Your task to perform on an android device: check data usage Image 0: 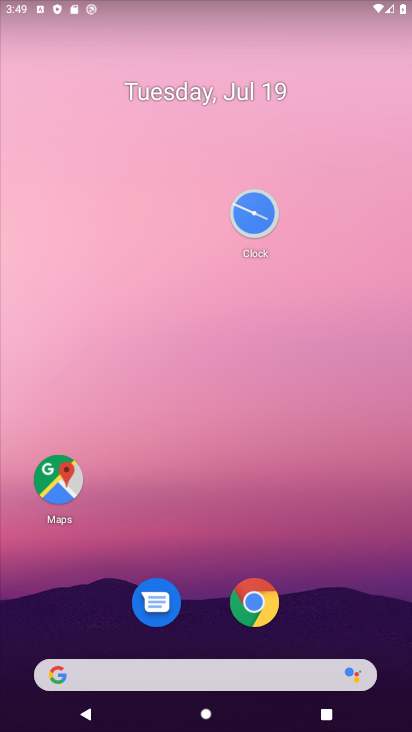
Step 0: drag from (342, 612) to (371, 219)
Your task to perform on an android device: check data usage Image 1: 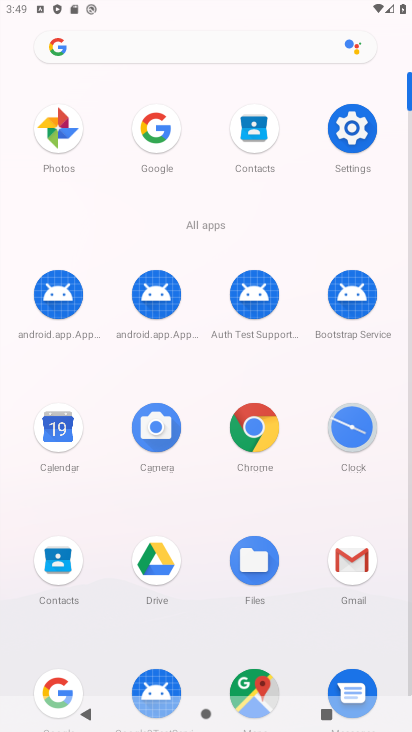
Step 1: drag from (336, 125) to (124, 167)
Your task to perform on an android device: check data usage Image 2: 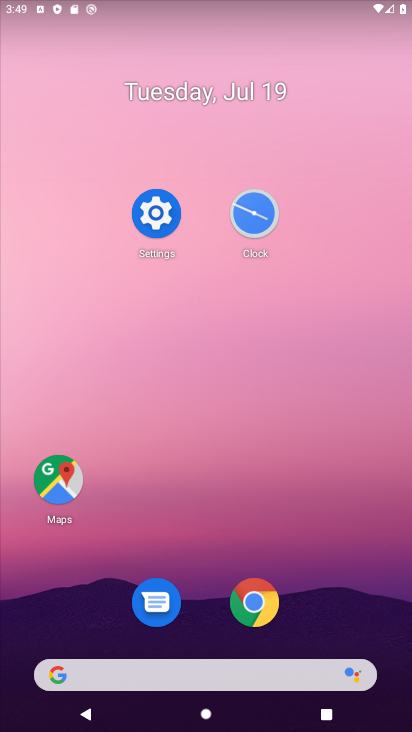
Step 2: click (138, 205)
Your task to perform on an android device: check data usage Image 3: 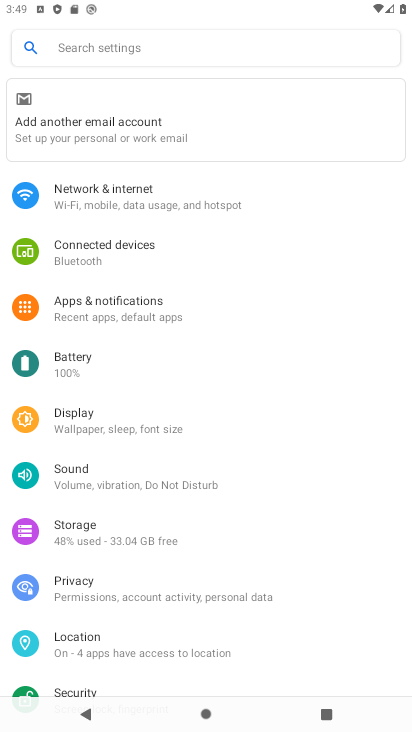
Step 3: click (138, 205)
Your task to perform on an android device: check data usage Image 4: 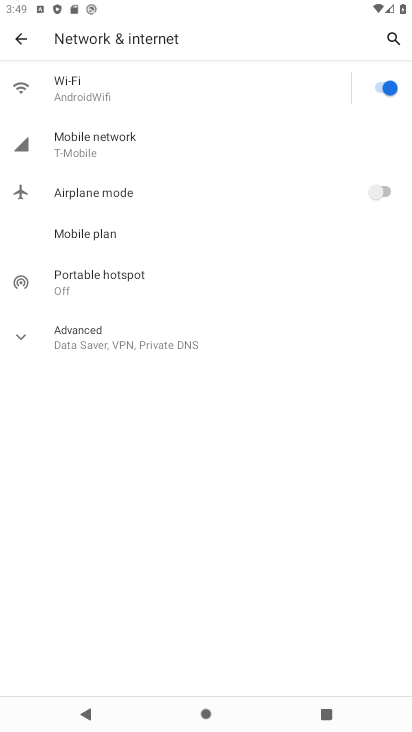
Step 4: click (126, 161)
Your task to perform on an android device: check data usage Image 5: 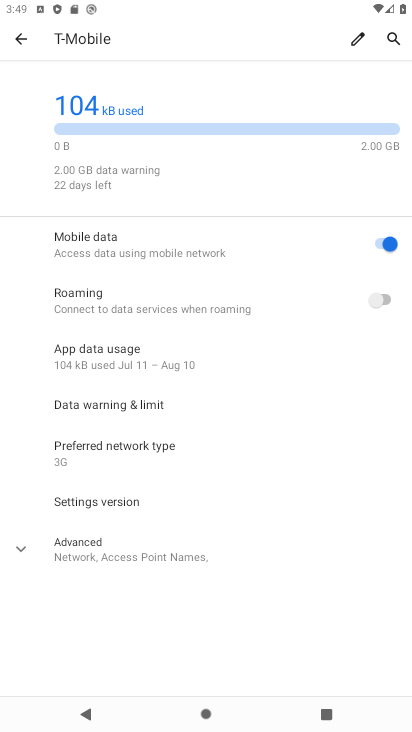
Step 5: task complete